Your task to perform on an android device: install app "Viber Messenger" Image 0: 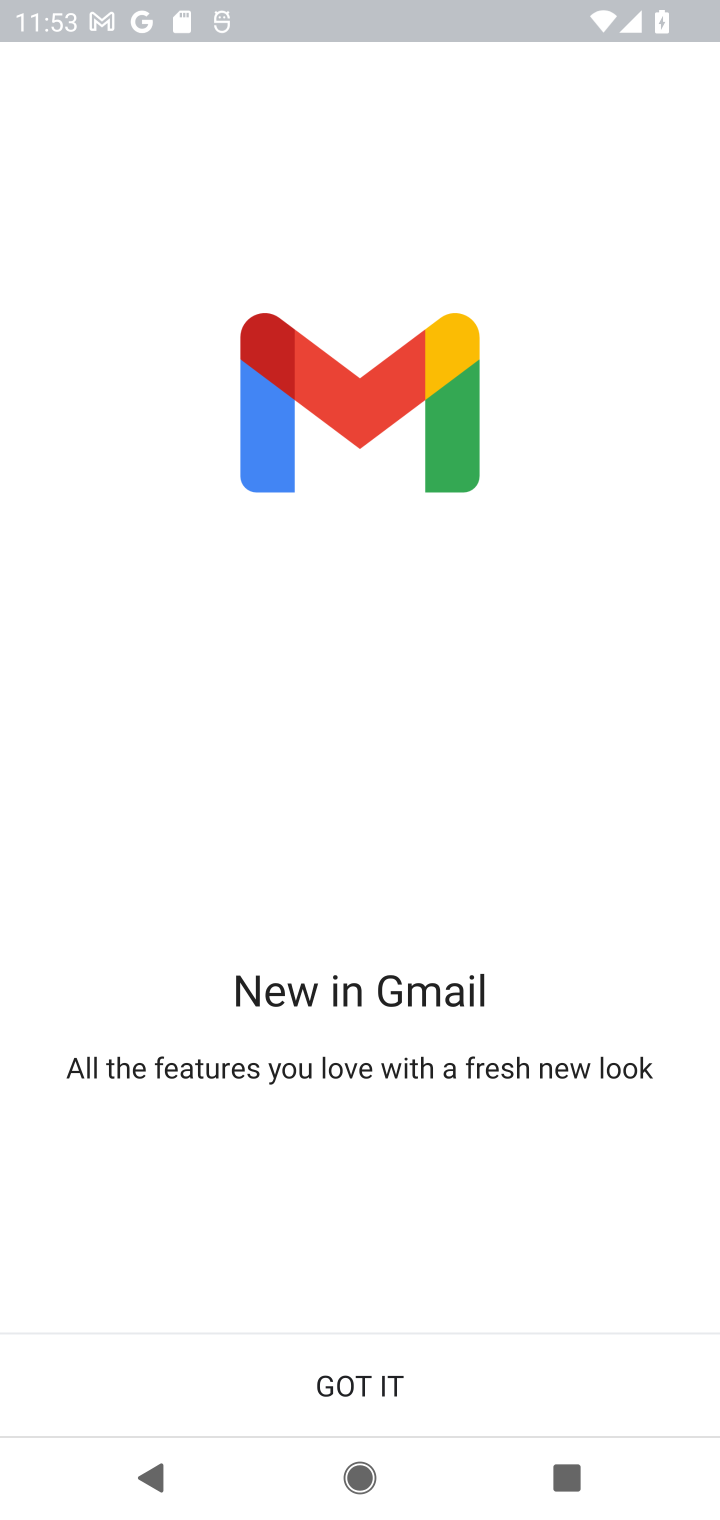
Step 0: press home button
Your task to perform on an android device: install app "Viber Messenger" Image 1: 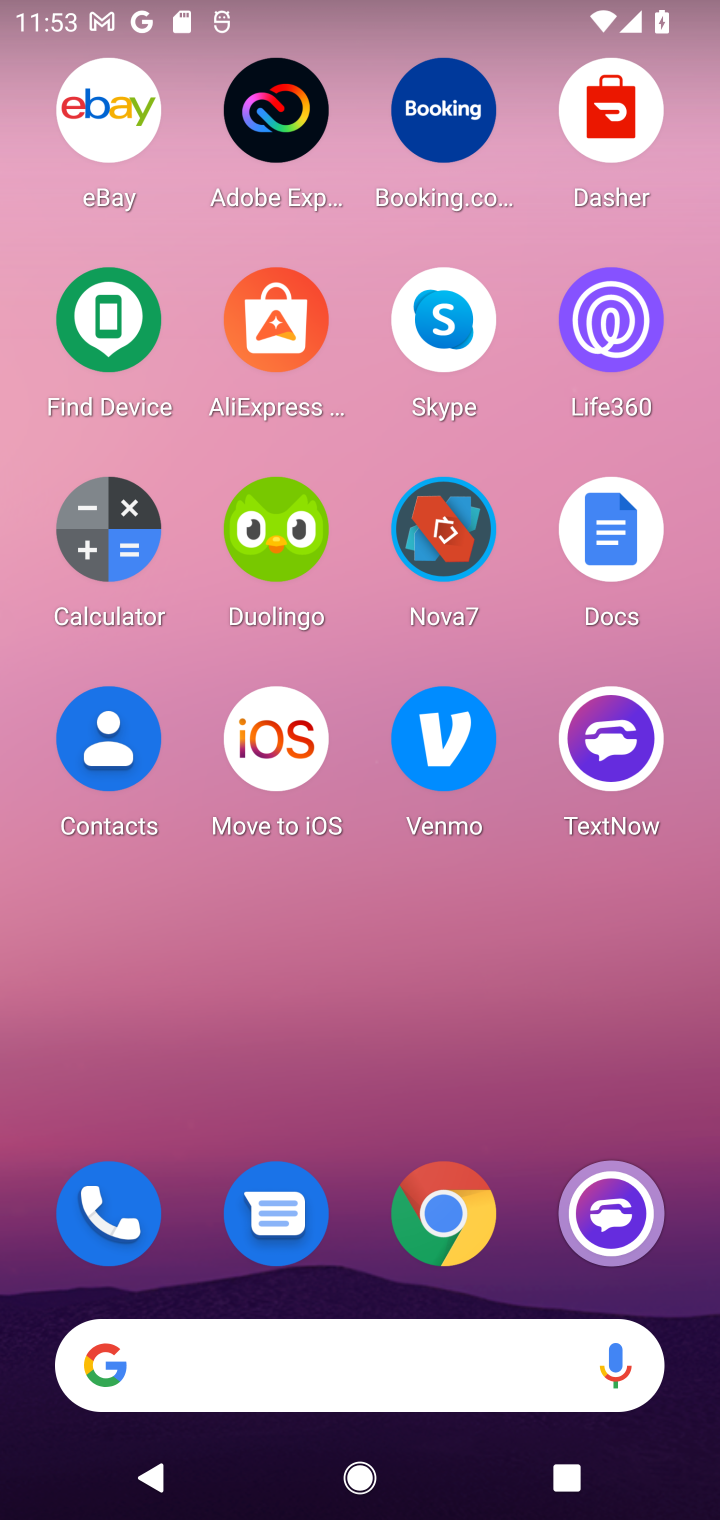
Step 1: drag from (258, 1322) to (327, 231)
Your task to perform on an android device: install app "Viber Messenger" Image 2: 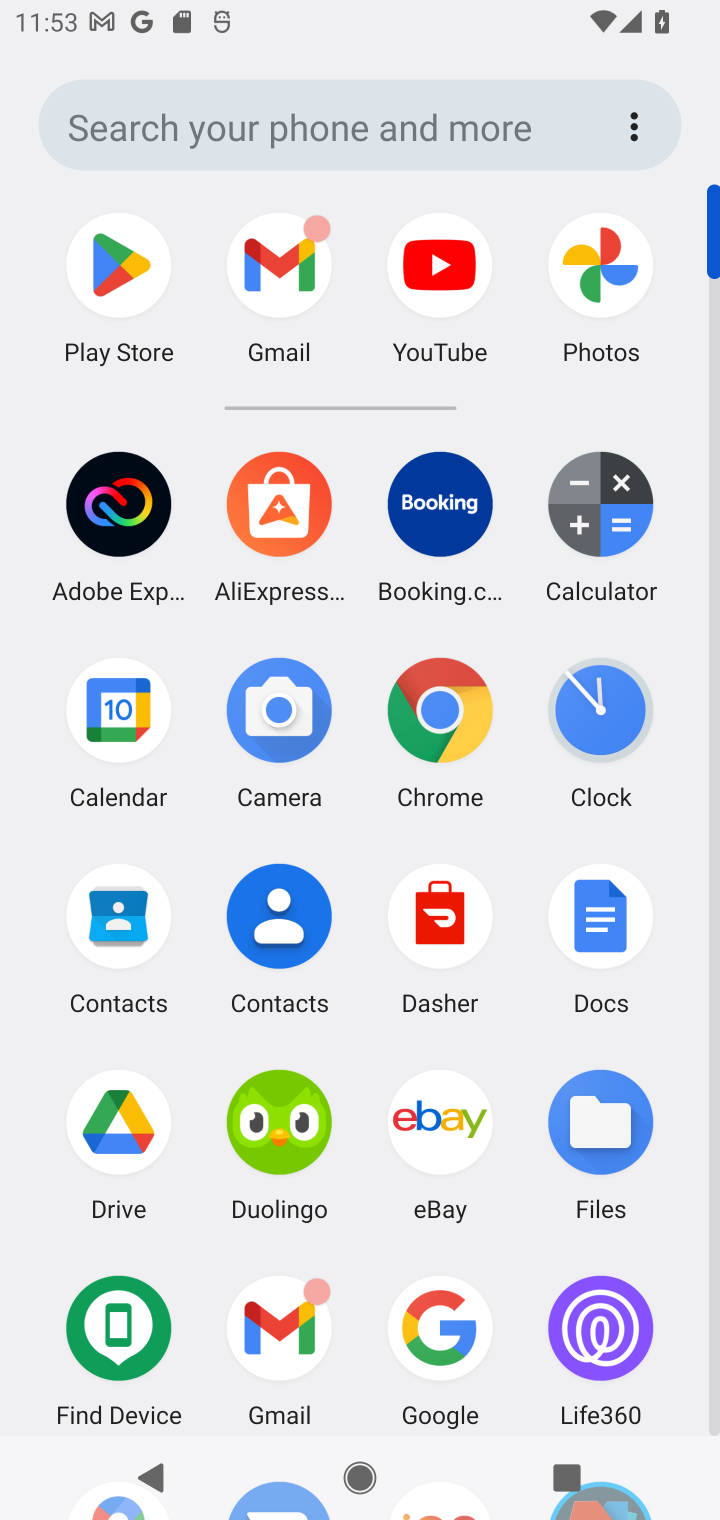
Step 2: click (125, 273)
Your task to perform on an android device: install app "Viber Messenger" Image 3: 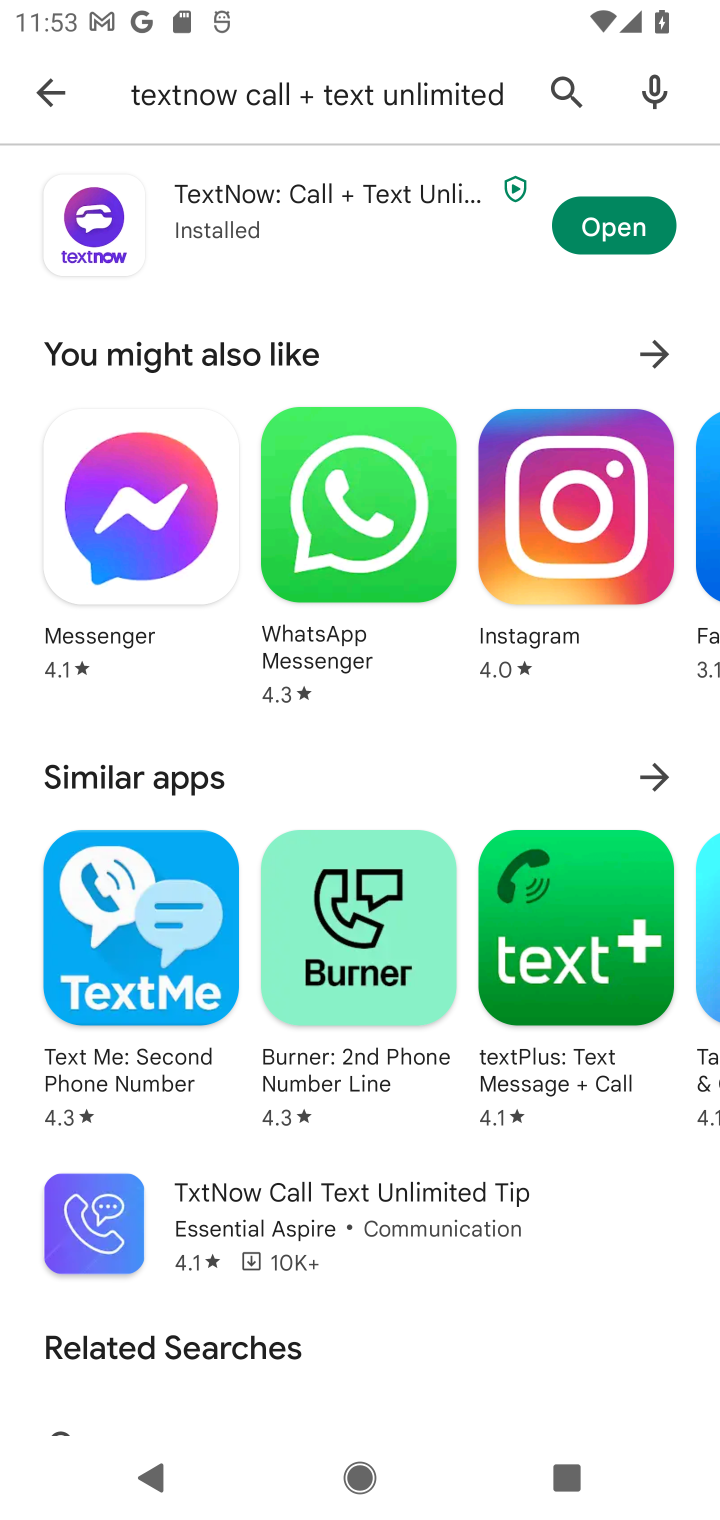
Step 3: press back button
Your task to perform on an android device: install app "Viber Messenger" Image 4: 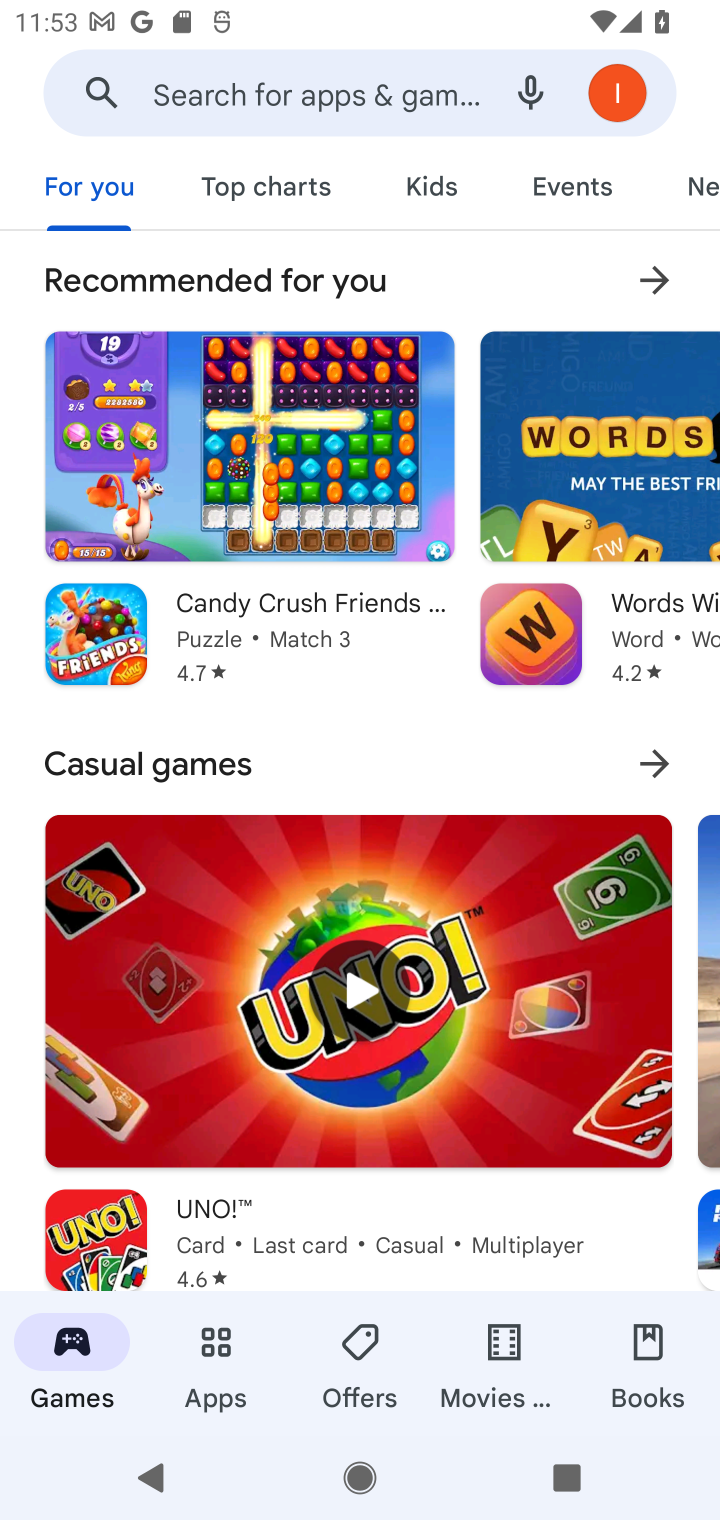
Step 4: click (346, 99)
Your task to perform on an android device: install app "Viber Messenger" Image 5: 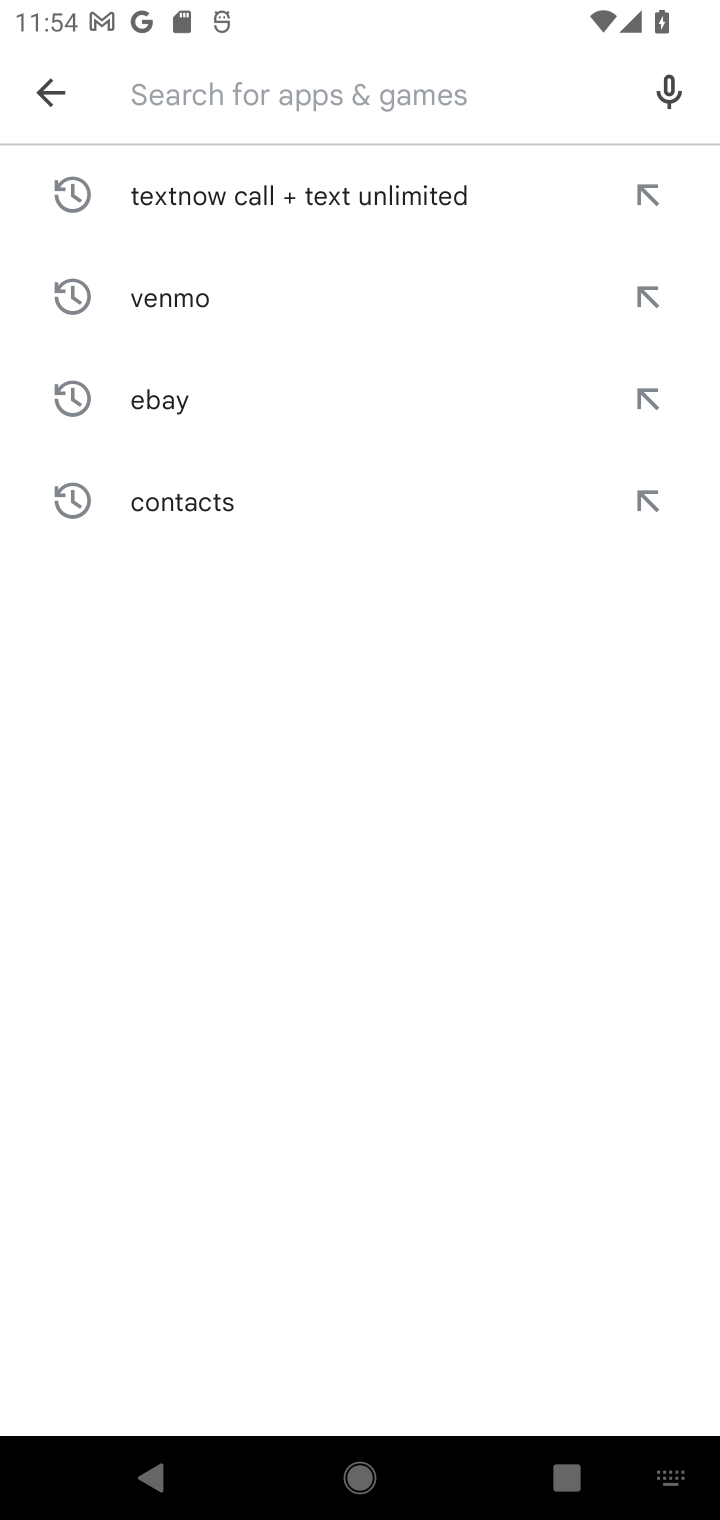
Step 5: type "Viber Messenger"
Your task to perform on an android device: install app "Viber Messenger" Image 6: 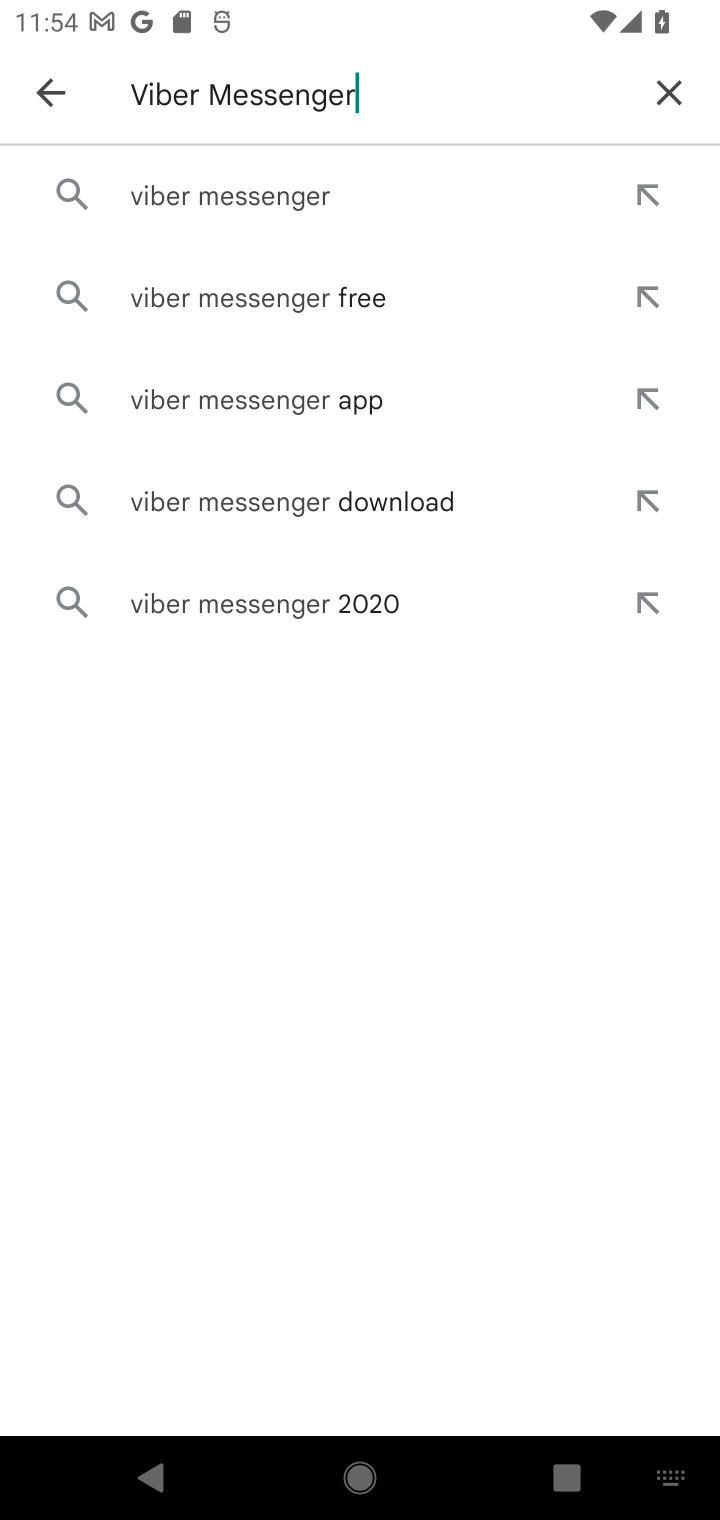
Step 6: click (297, 199)
Your task to perform on an android device: install app "Viber Messenger" Image 7: 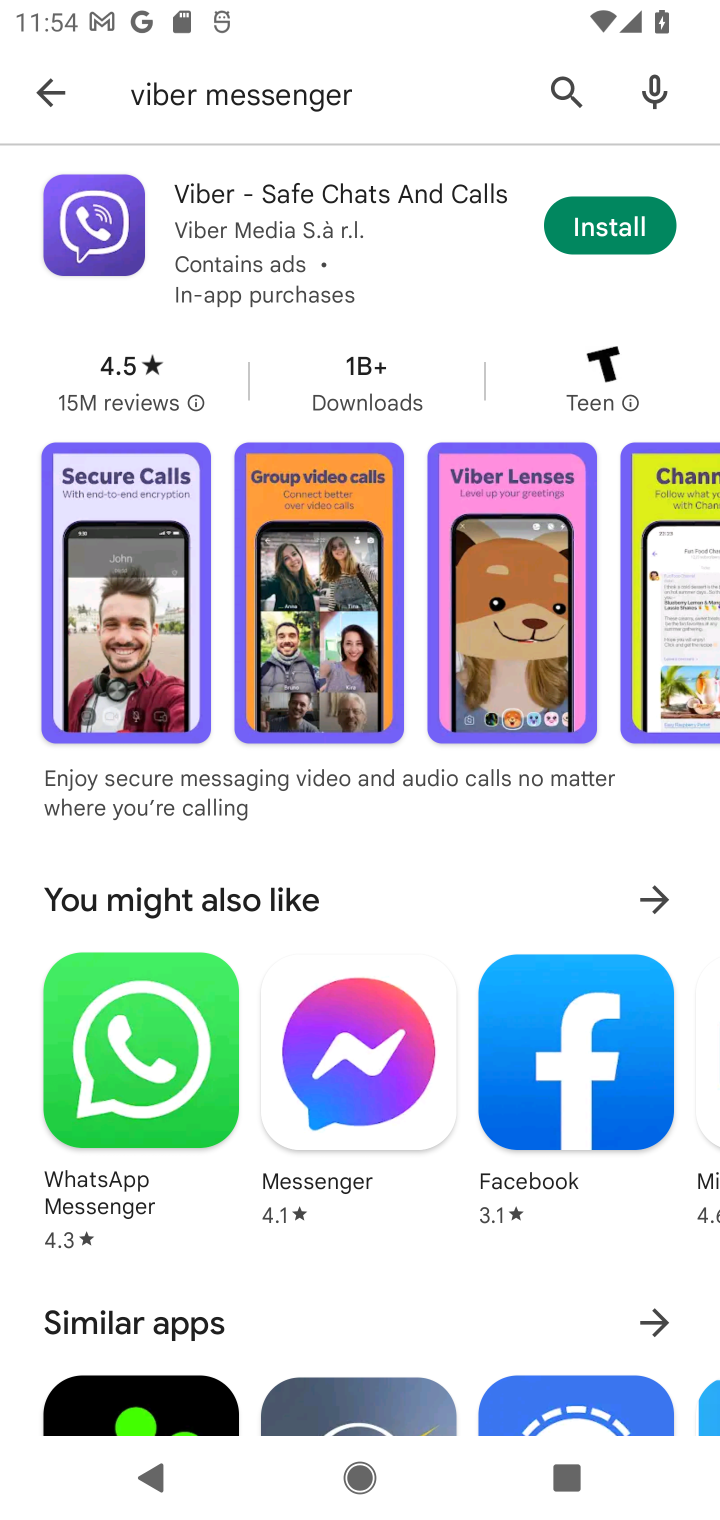
Step 7: click (634, 220)
Your task to perform on an android device: install app "Viber Messenger" Image 8: 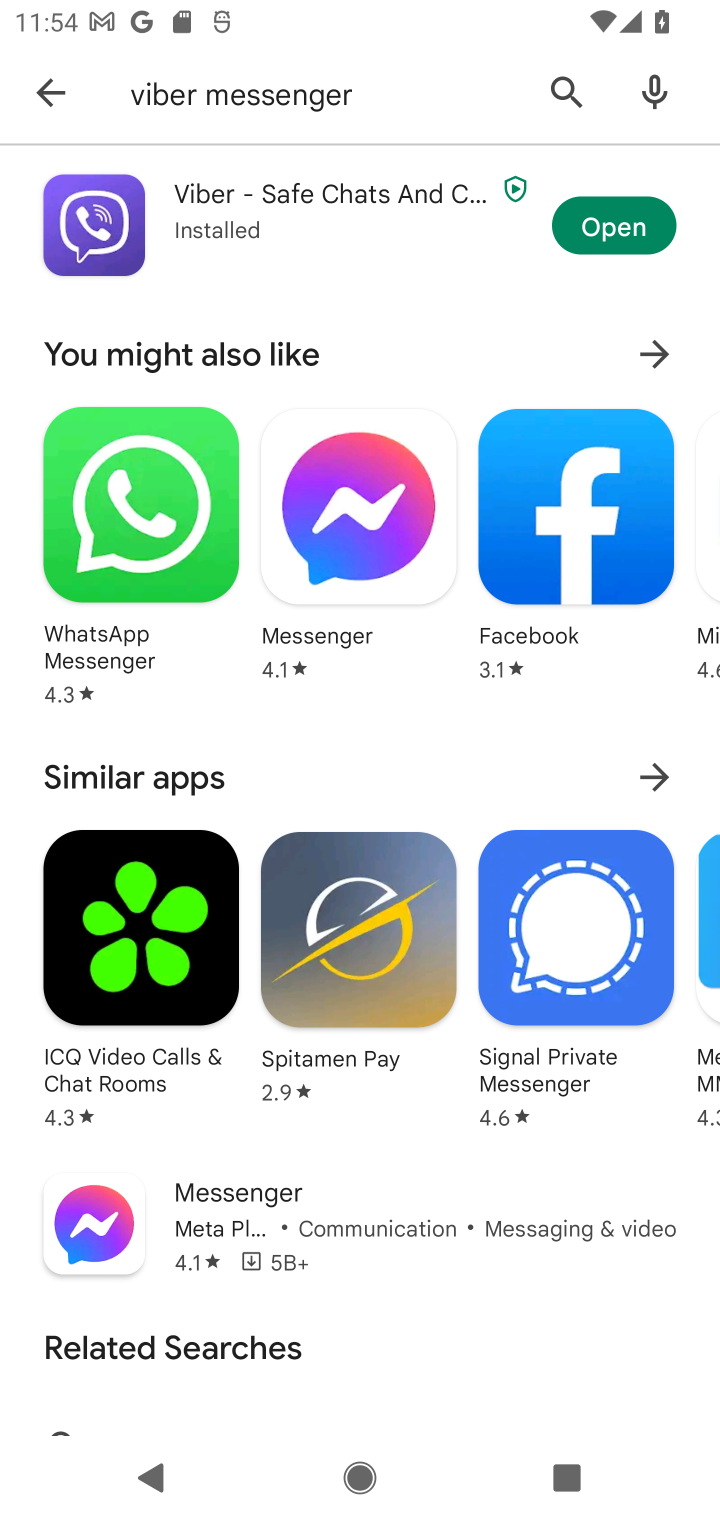
Step 8: task complete